Your task to perform on an android device: see tabs open on other devices in the chrome app Image 0: 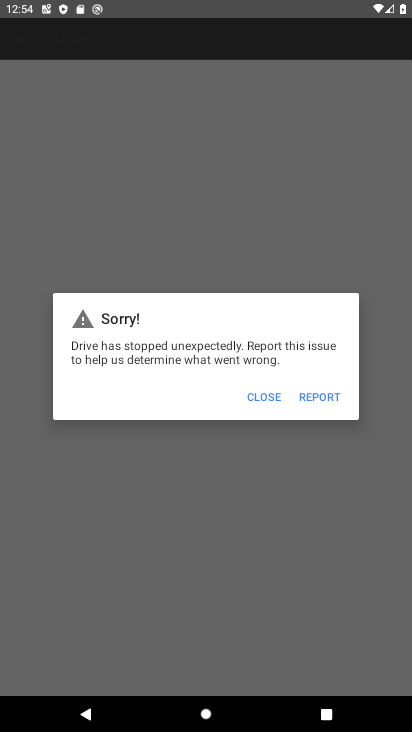
Step 0: press home button
Your task to perform on an android device: see tabs open on other devices in the chrome app Image 1: 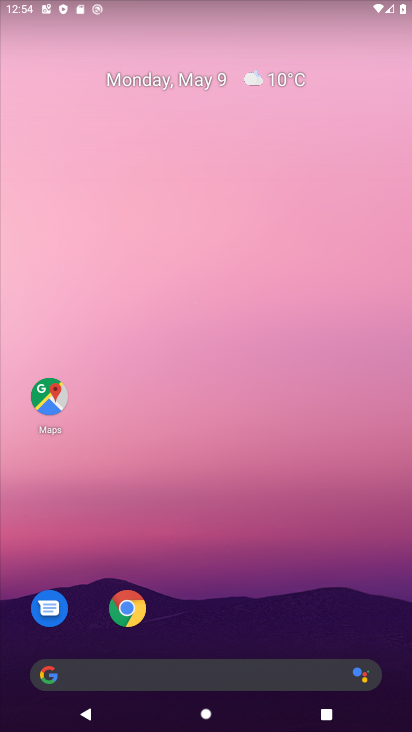
Step 1: click (133, 595)
Your task to perform on an android device: see tabs open on other devices in the chrome app Image 2: 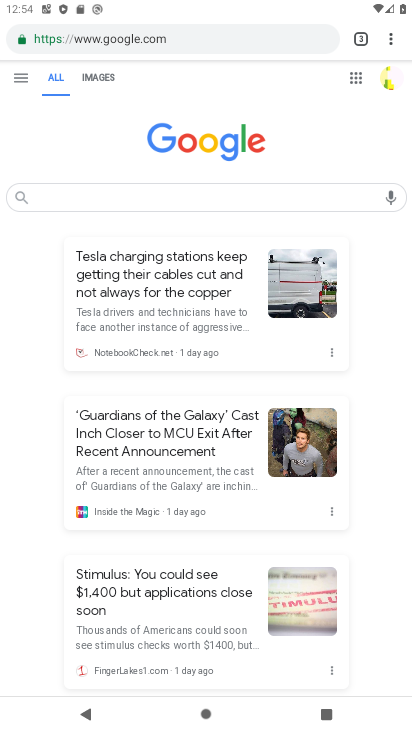
Step 2: click (387, 46)
Your task to perform on an android device: see tabs open on other devices in the chrome app Image 3: 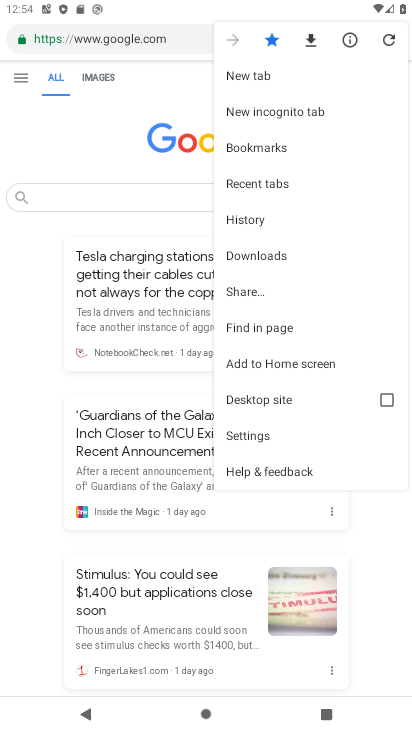
Step 3: click (268, 193)
Your task to perform on an android device: see tabs open on other devices in the chrome app Image 4: 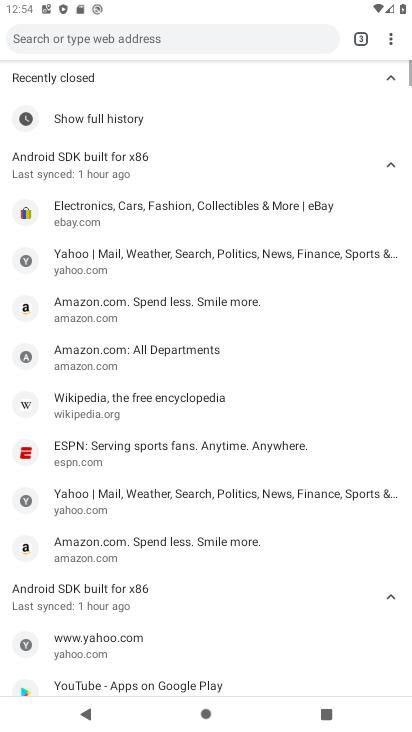
Step 4: task complete